Your task to perform on an android device: open a bookmark in the chrome app Image 0: 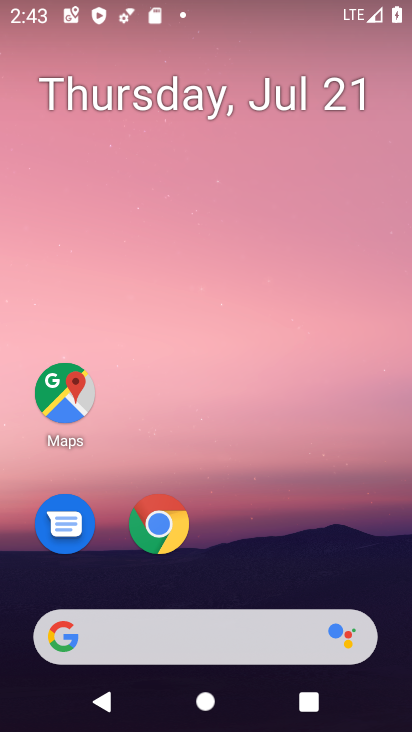
Step 0: click (159, 534)
Your task to perform on an android device: open a bookmark in the chrome app Image 1: 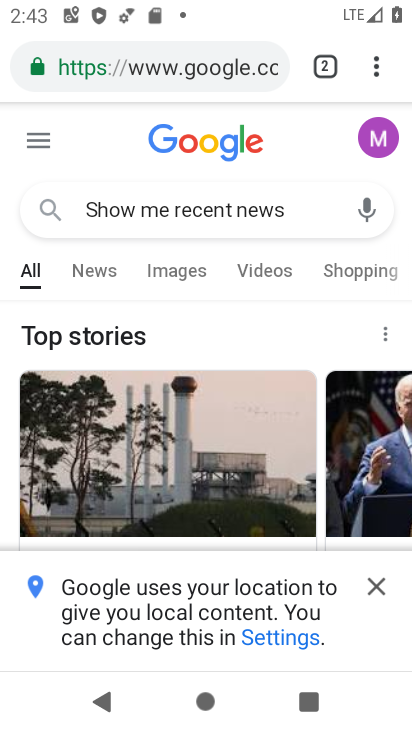
Step 1: click (377, 66)
Your task to perform on an android device: open a bookmark in the chrome app Image 2: 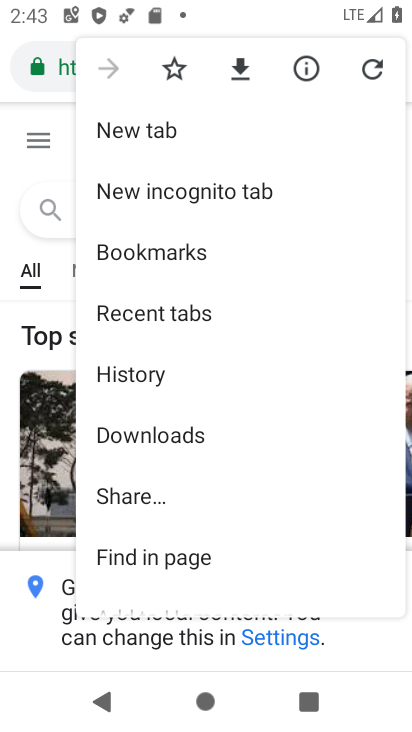
Step 2: click (198, 250)
Your task to perform on an android device: open a bookmark in the chrome app Image 3: 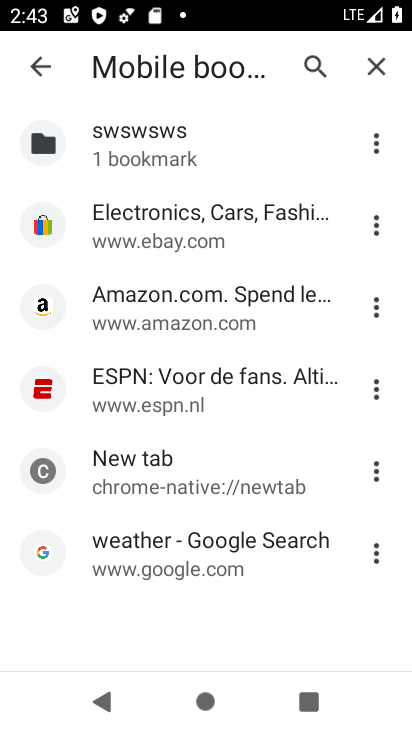
Step 3: click (190, 378)
Your task to perform on an android device: open a bookmark in the chrome app Image 4: 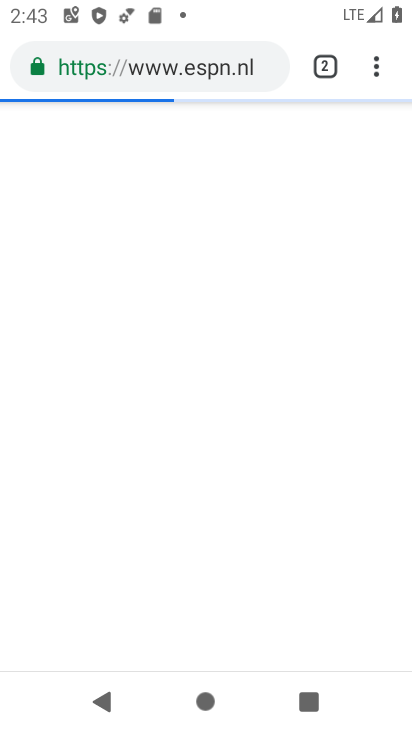
Step 4: click (190, 371)
Your task to perform on an android device: open a bookmark in the chrome app Image 5: 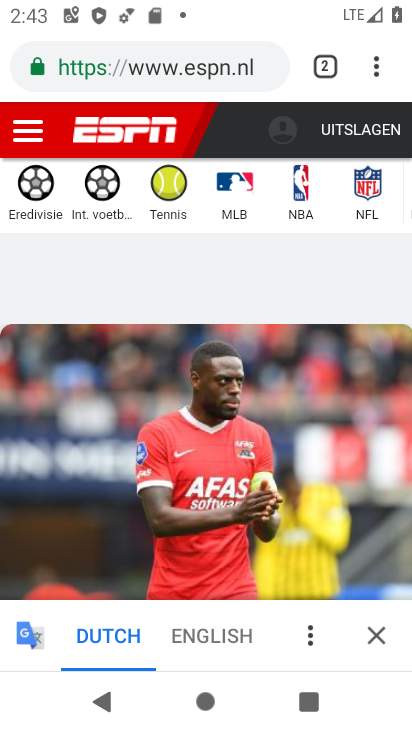
Step 5: click (210, 639)
Your task to perform on an android device: open a bookmark in the chrome app Image 6: 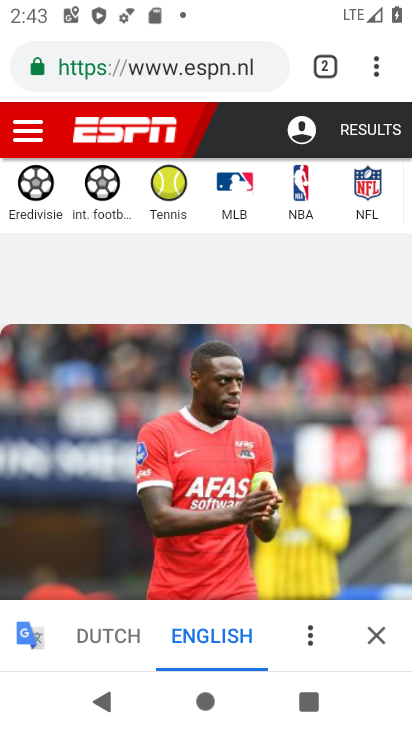
Step 6: click (308, 630)
Your task to perform on an android device: open a bookmark in the chrome app Image 7: 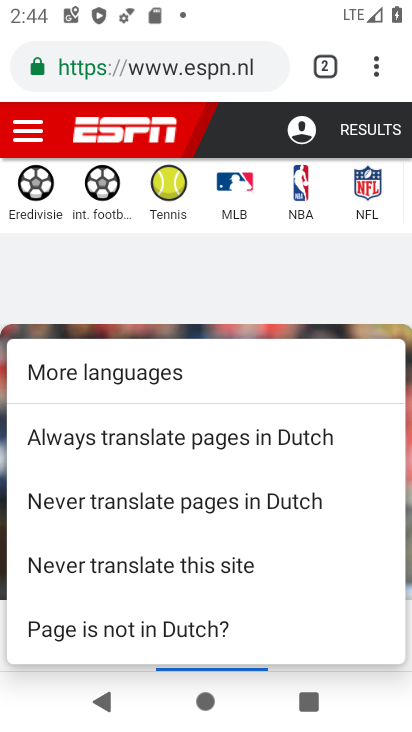
Step 7: click (366, 693)
Your task to perform on an android device: open a bookmark in the chrome app Image 8: 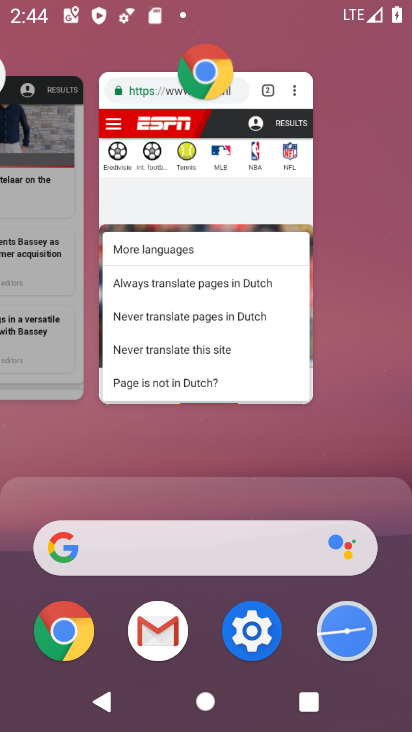
Step 8: click (243, 301)
Your task to perform on an android device: open a bookmark in the chrome app Image 9: 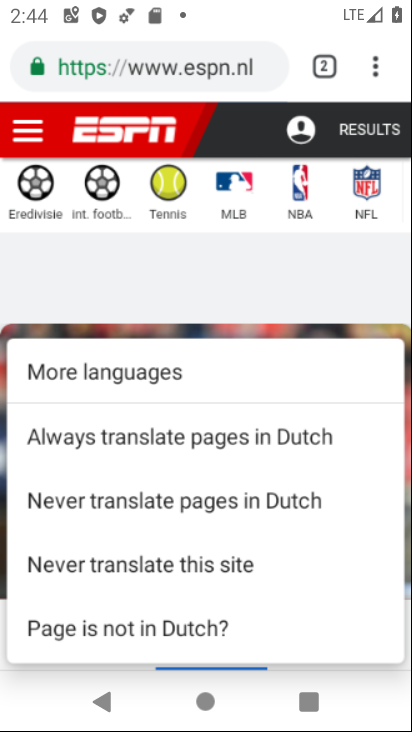
Step 9: click (279, 286)
Your task to perform on an android device: open a bookmark in the chrome app Image 10: 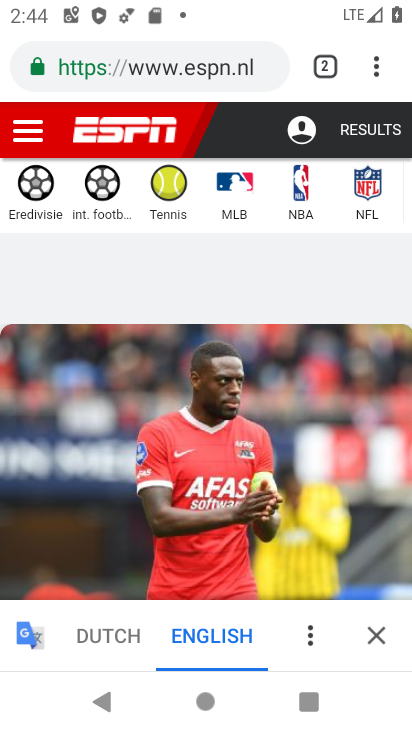
Step 10: task complete